Your task to perform on an android device: turn vacation reply on in the gmail app Image 0: 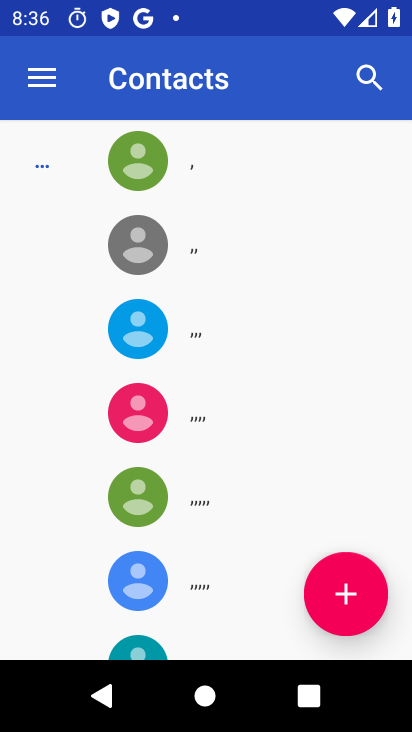
Step 0: press home button
Your task to perform on an android device: turn vacation reply on in the gmail app Image 1: 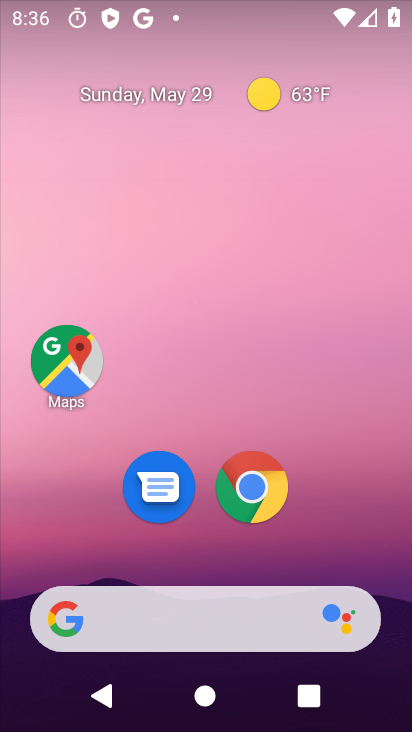
Step 1: drag from (344, 520) to (241, 126)
Your task to perform on an android device: turn vacation reply on in the gmail app Image 2: 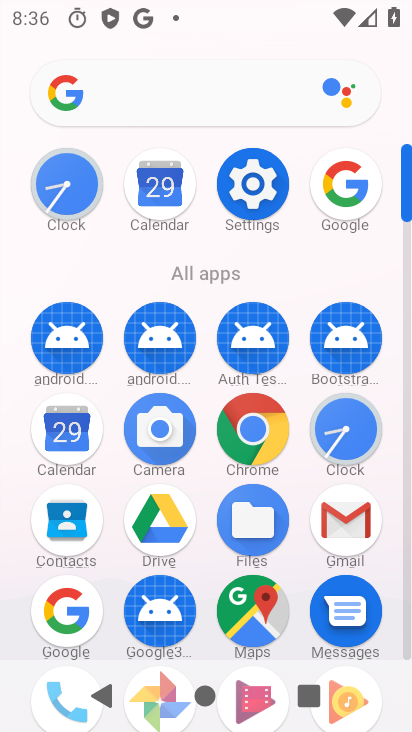
Step 2: click (345, 519)
Your task to perform on an android device: turn vacation reply on in the gmail app Image 3: 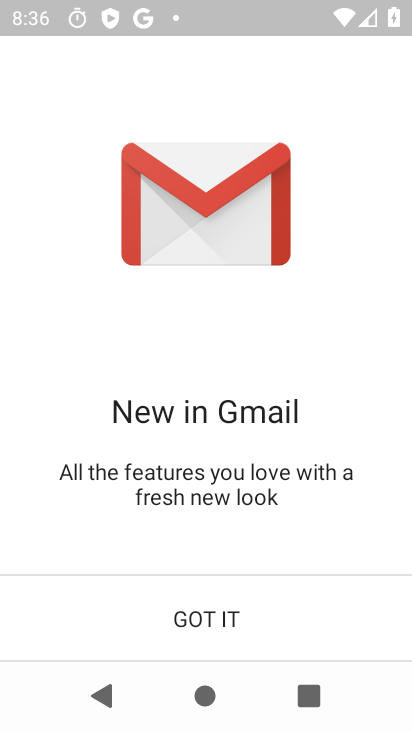
Step 3: click (213, 611)
Your task to perform on an android device: turn vacation reply on in the gmail app Image 4: 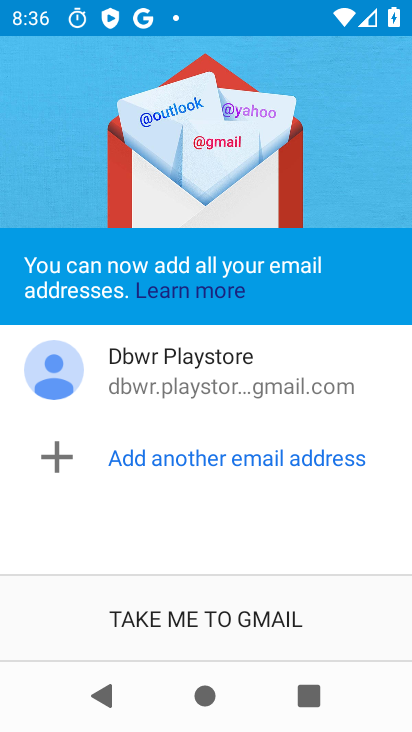
Step 4: click (213, 611)
Your task to perform on an android device: turn vacation reply on in the gmail app Image 5: 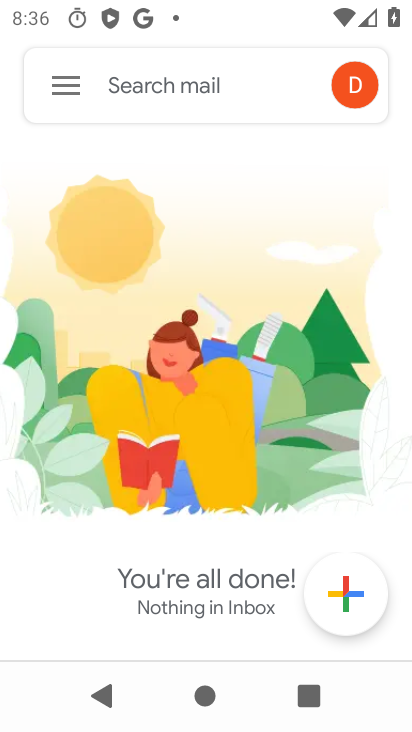
Step 5: click (69, 93)
Your task to perform on an android device: turn vacation reply on in the gmail app Image 6: 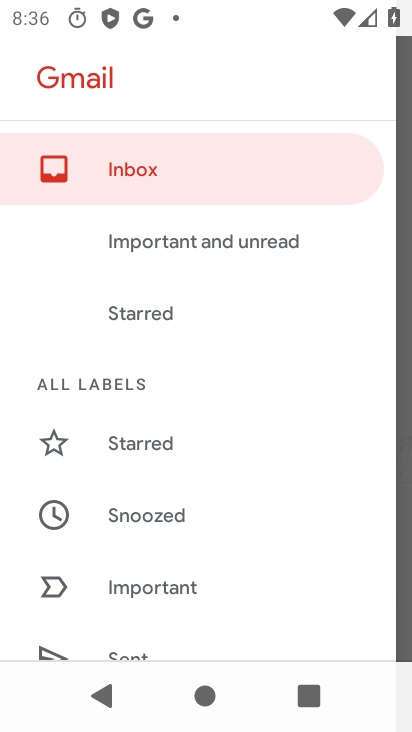
Step 6: drag from (122, 552) to (190, 439)
Your task to perform on an android device: turn vacation reply on in the gmail app Image 7: 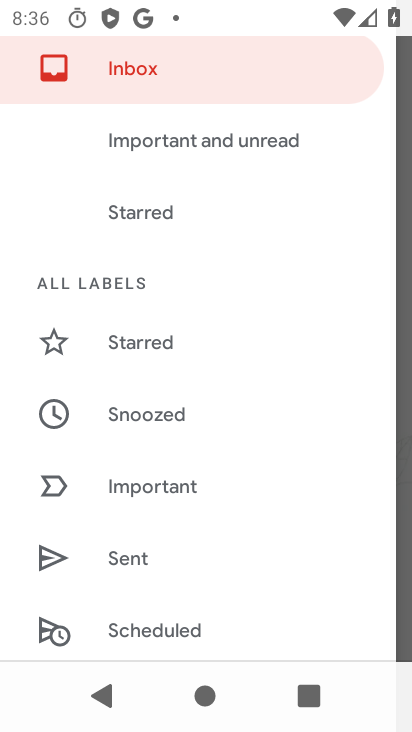
Step 7: drag from (166, 586) to (235, 472)
Your task to perform on an android device: turn vacation reply on in the gmail app Image 8: 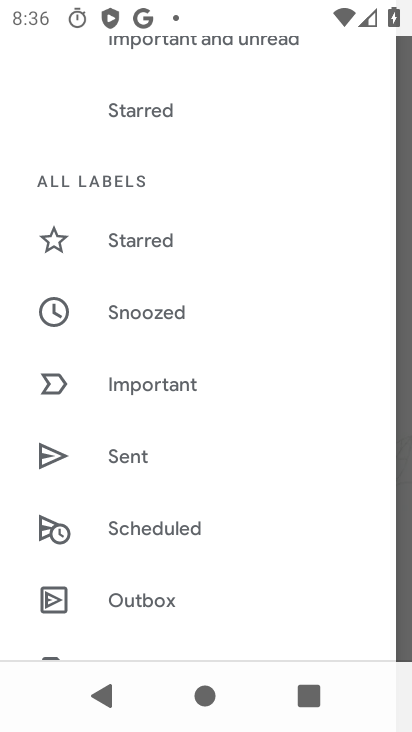
Step 8: drag from (154, 567) to (214, 457)
Your task to perform on an android device: turn vacation reply on in the gmail app Image 9: 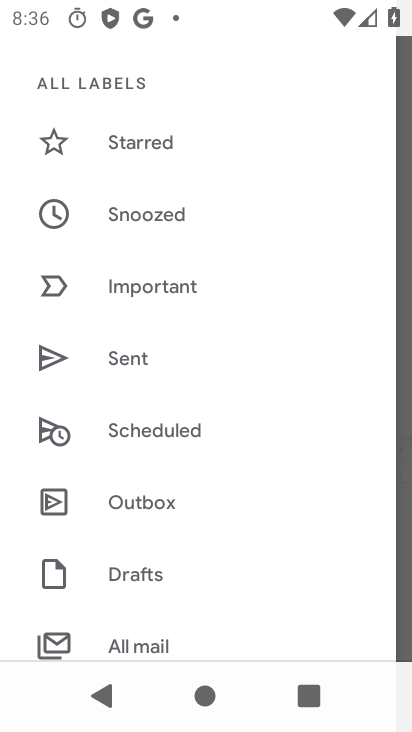
Step 9: drag from (135, 542) to (218, 439)
Your task to perform on an android device: turn vacation reply on in the gmail app Image 10: 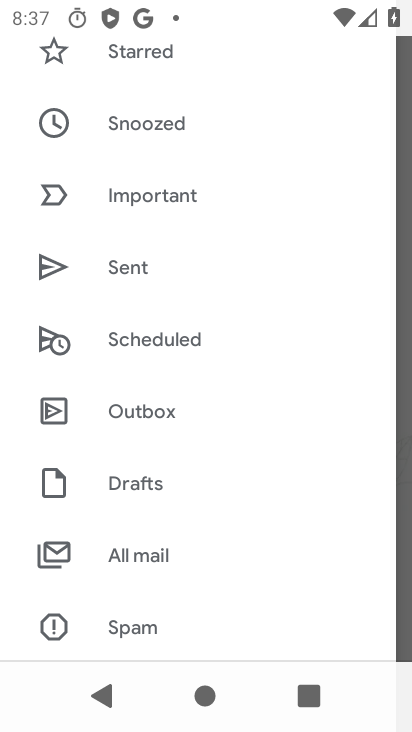
Step 10: drag from (143, 523) to (220, 434)
Your task to perform on an android device: turn vacation reply on in the gmail app Image 11: 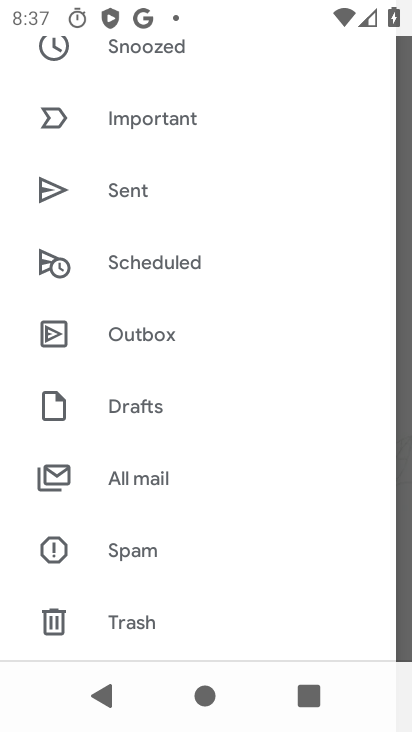
Step 11: drag from (149, 542) to (184, 477)
Your task to perform on an android device: turn vacation reply on in the gmail app Image 12: 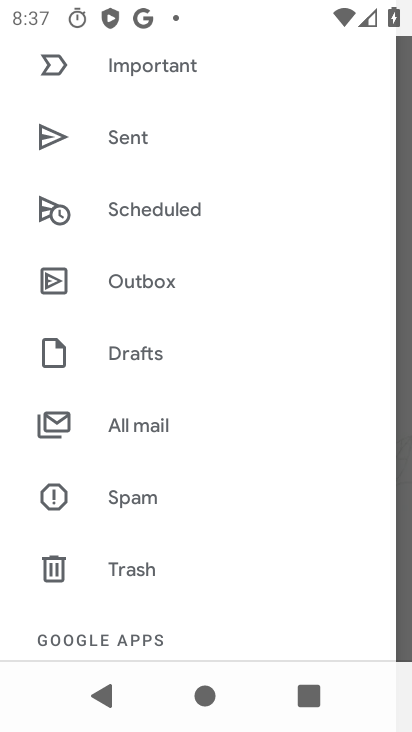
Step 12: drag from (122, 592) to (197, 482)
Your task to perform on an android device: turn vacation reply on in the gmail app Image 13: 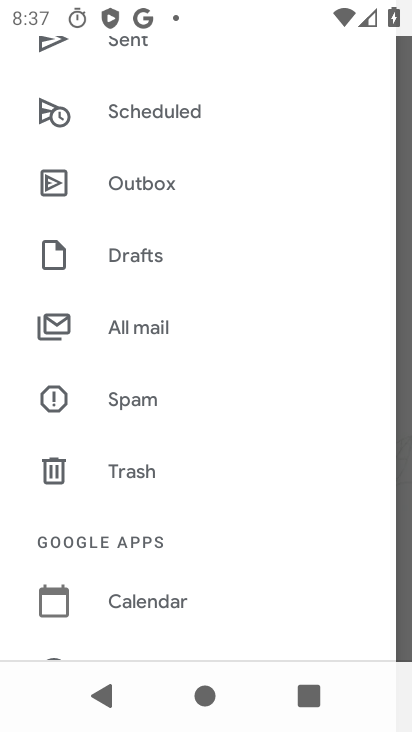
Step 13: drag from (134, 573) to (219, 471)
Your task to perform on an android device: turn vacation reply on in the gmail app Image 14: 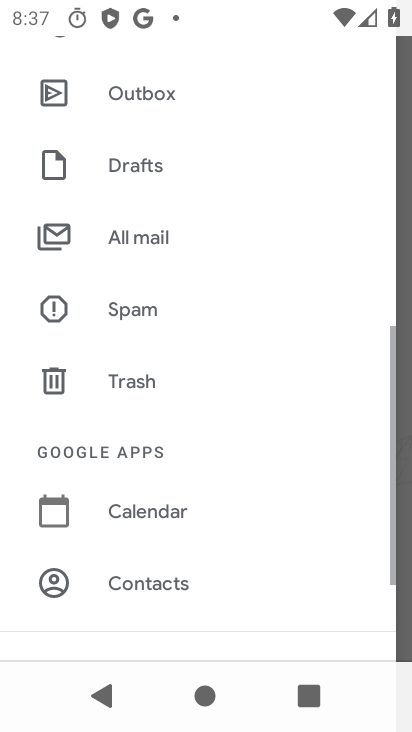
Step 14: drag from (146, 568) to (245, 452)
Your task to perform on an android device: turn vacation reply on in the gmail app Image 15: 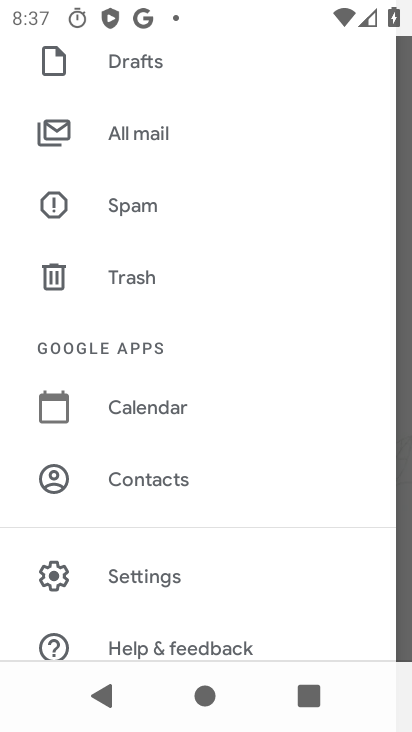
Step 15: drag from (146, 595) to (226, 490)
Your task to perform on an android device: turn vacation reply on in the gmail app Image 16: 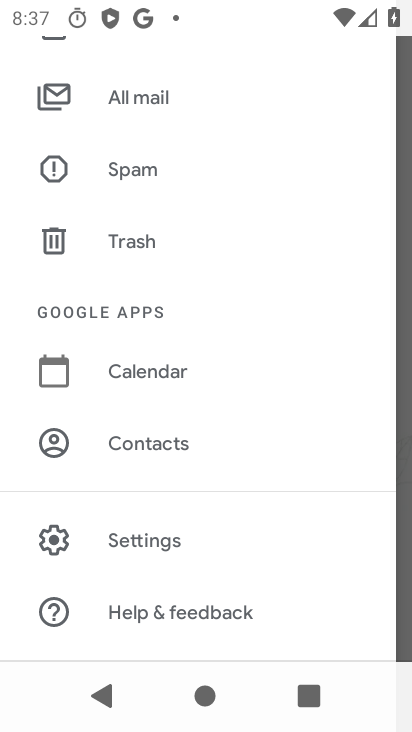
Step 16: click (149, 545)
Your task to perform on an android device: turn vacation reply on in the gmail app Image 17: 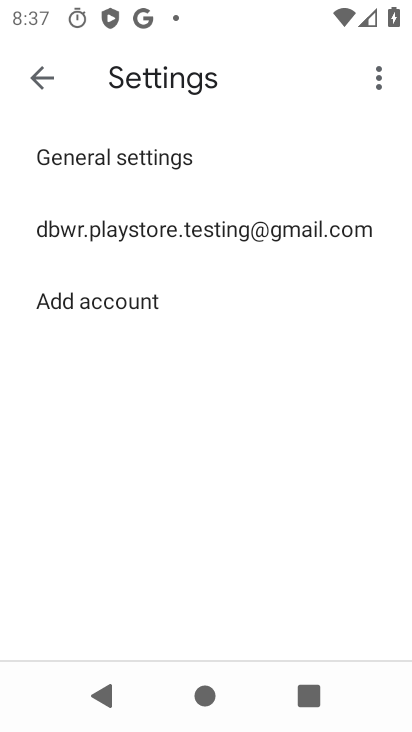
Step 17: click (286, 234)
Your task to perform on an android device: turn vacation reply on in the gmail app Image 18: 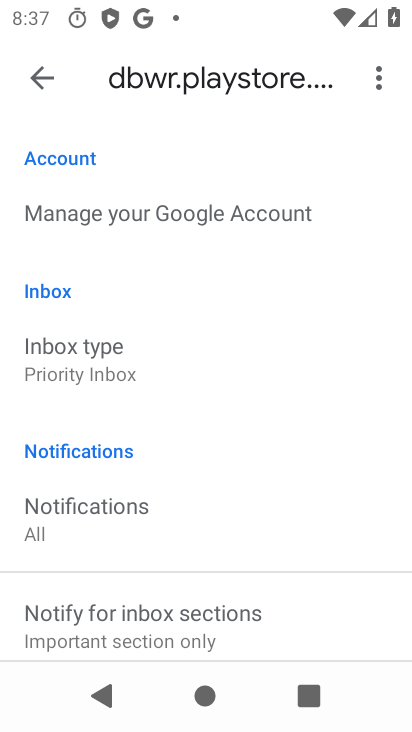
Step 18: drag from (154, 549) to (235, 447)
Your task to perform on an android device: turn vacation reply on in the gmail app Image 19: 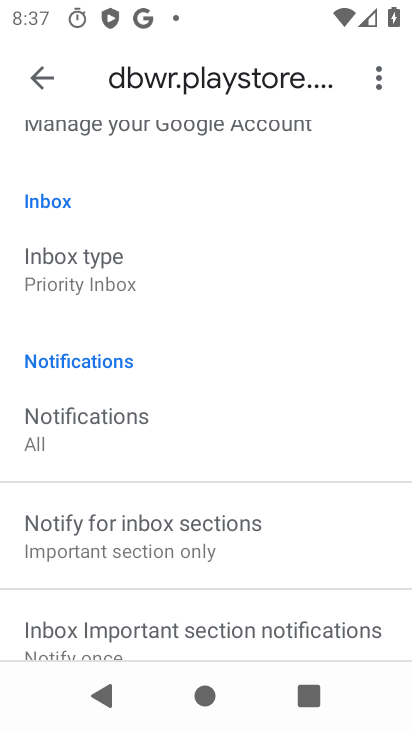
Step 19: drag from (194, 548) to (260, 456)
Your task to perform on an android device: turn vacation reply on in the gmail app Image 20: 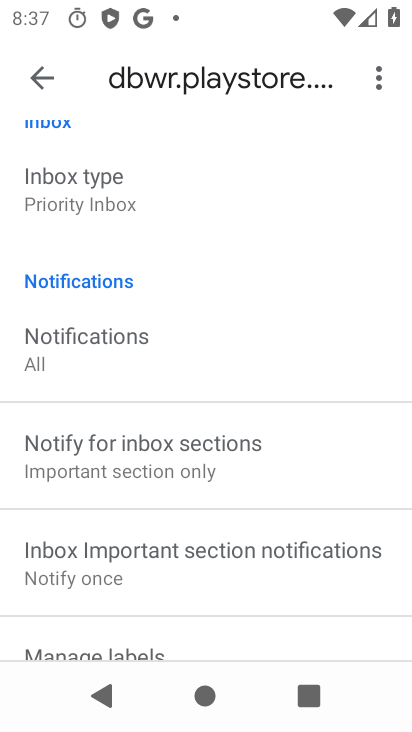
Step 20: drag from (205, 596) to (291, 483)
Your task to perform on an android device: turn vacation reply on in the gmail app Image 21: 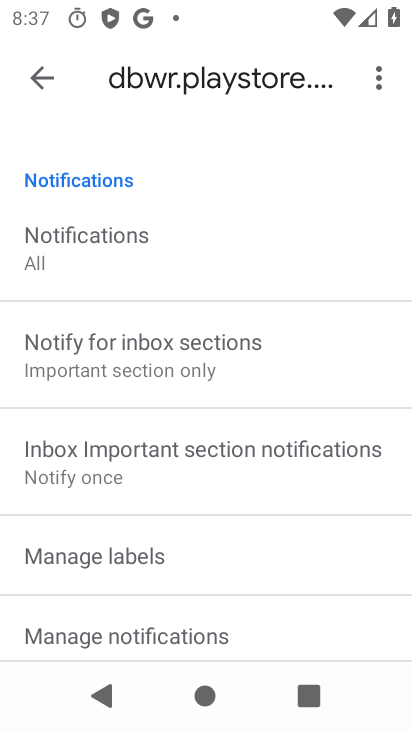
Step 21: drag from (211, 576) to (279, 454)
Your task to perform on an android device: turn vacation reply on in the gmail app Image 22: 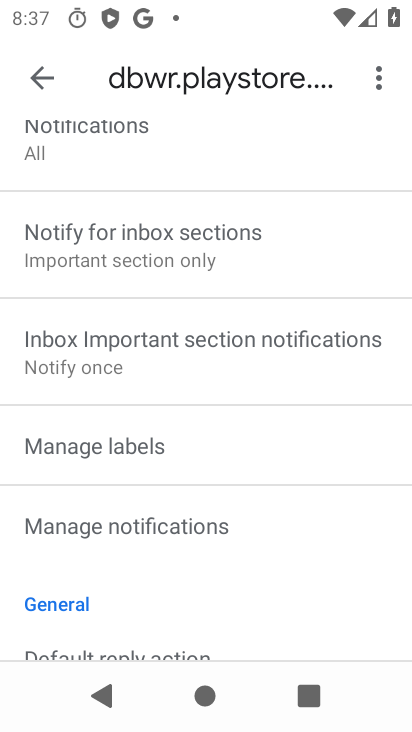
Step 22: drag from (128, 565) to (233, 433)
Your task to perform on an android device: turn vacation reply on in the gmail app Image 23: 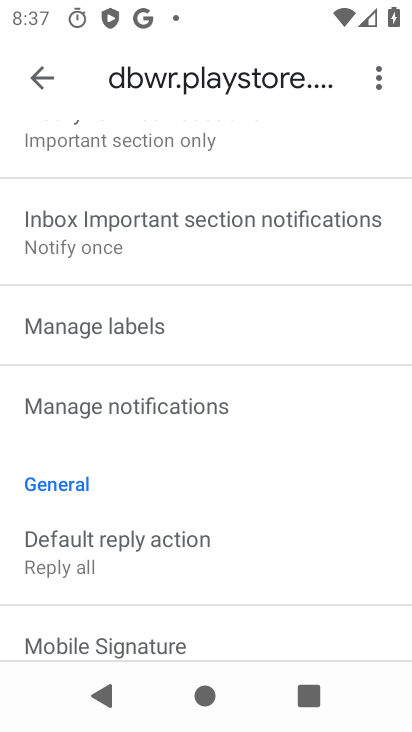
Step 23: drag from (112, 577) to (180, 435)
Your task to perform on an android device: turn vacation reply on in the gmail app Image 24: 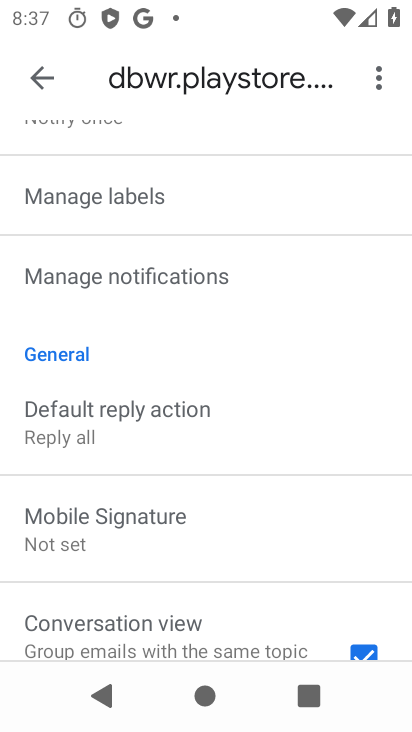
Step 24: drag from (132, 537) to (223, 442)
Your task to perform on an android device: turn vacation reply on in the gmail app Image 25: 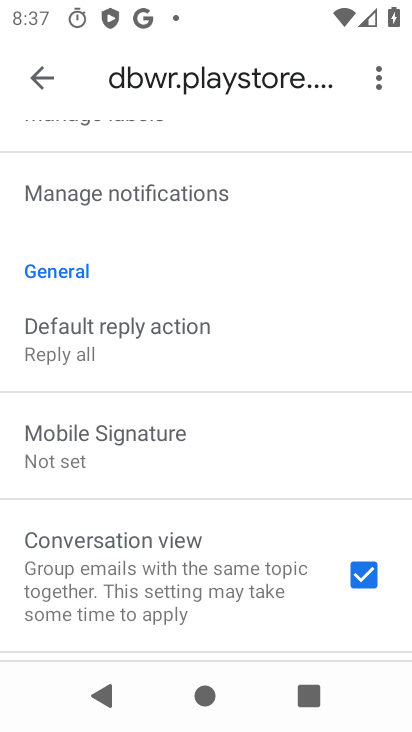
Step 25: drag from (145, 608) to (243, 479)
Your task to perform on an android device: turn vacation reply on in the gmail app Image 26: 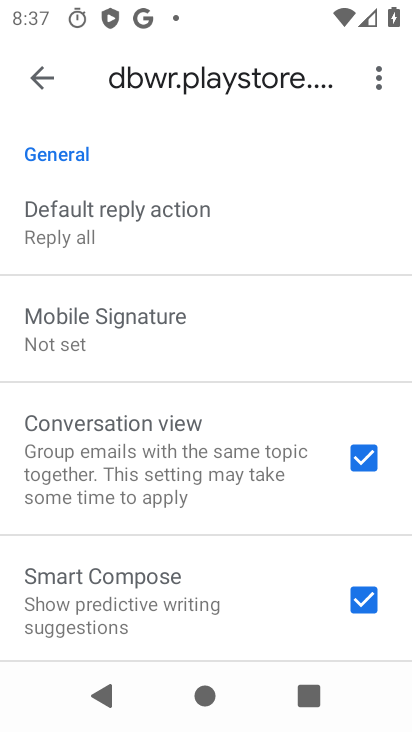
Step 26: drag from (203, 531) to (253, 447)
Your task to perform on an android device: turn vacation reply on in the gmail app Image 27: 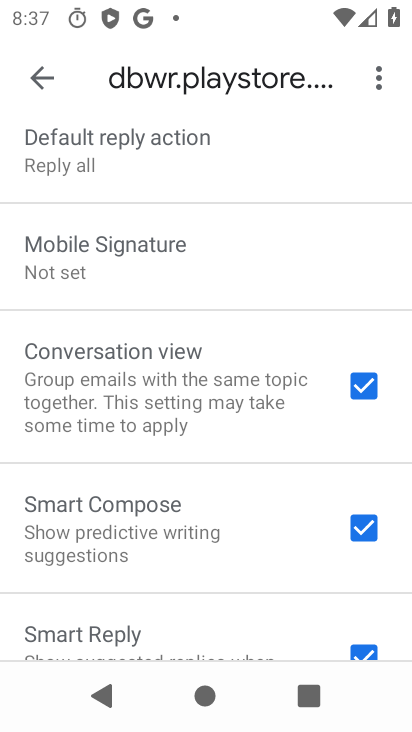
Step 27: drag from (150, 576) to (241, 458)
Your task to perform on an android device: turn vacation reply on in the gmail app Image 28: 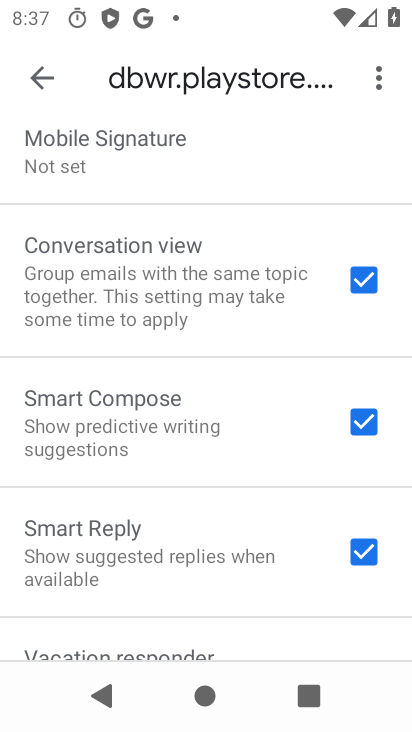
Step 28: drag from (169, 603) to (261, 487)
Your task to perform on an android device: turn vacation reply on in the gmail app Image 29: 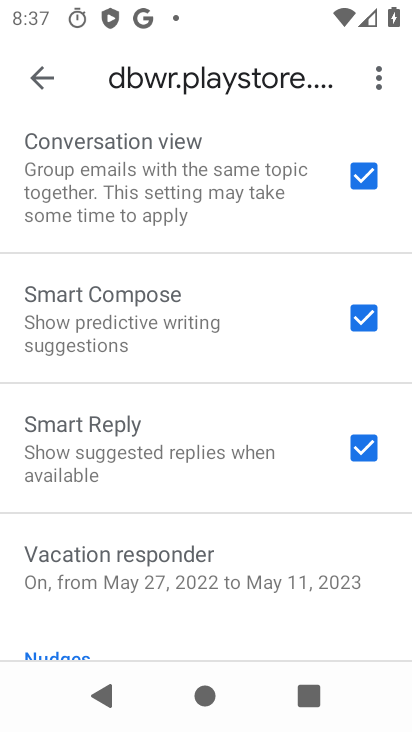
Step 29: click (192, 589)
Your task to perform on an android device: turn vacation reply on in the gmail app Image 30: 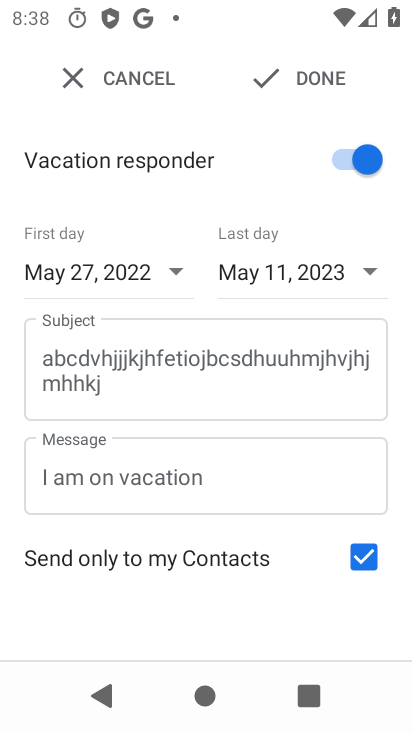
Step 30: task complete